Your task to perform on an android device: change timer sound Image 0: 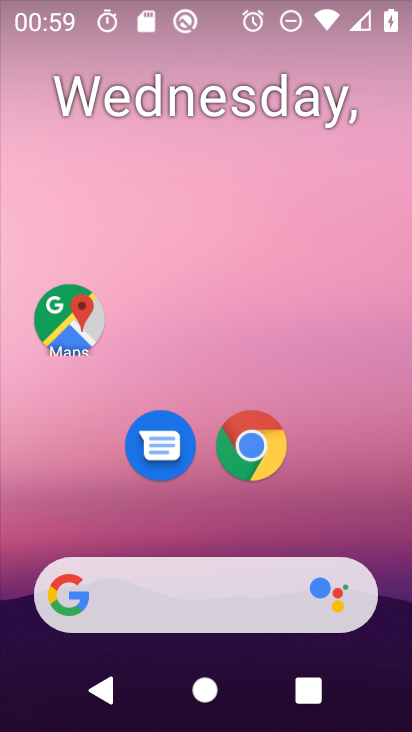
Step 0: drag from (315, 522) to (280, 0)
Your task to perform on an android device: change timer sound Image 1: 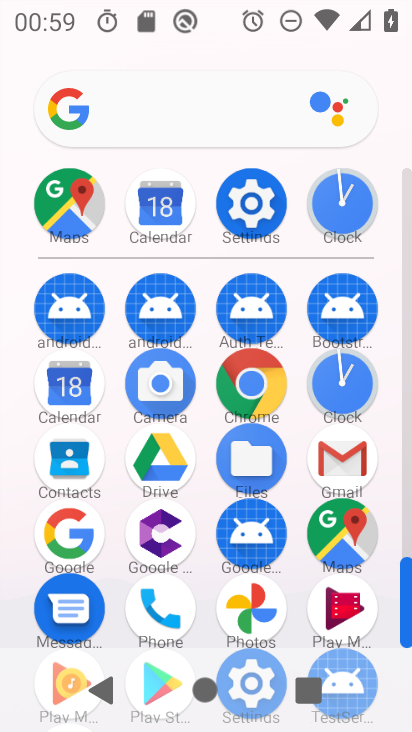
Step 1: click (323, 386)
Your task to perform on an android device: change timer sound Image 2: 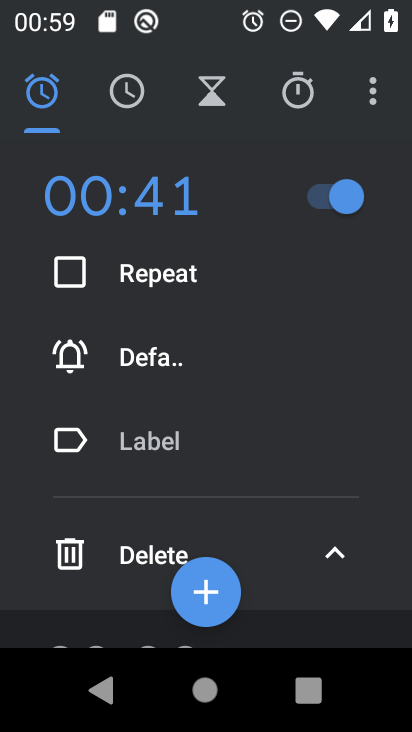
Step 2: click (368, 89)
Your task to perform on an android device: change timer sound Image 3: 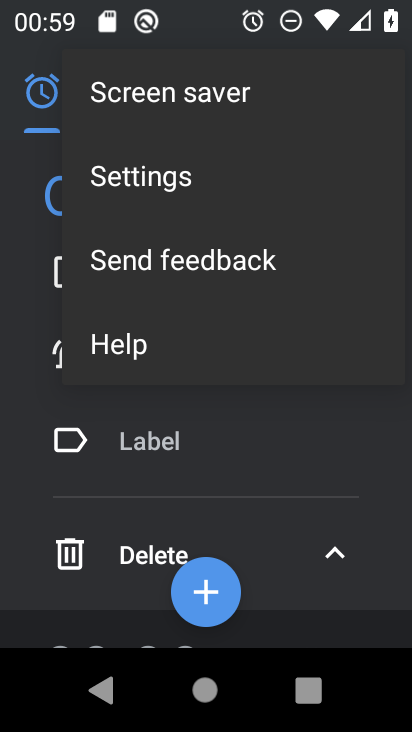
Step 3: click (163, 176)
Your task to perform on an android device: change timer sound Image 4: 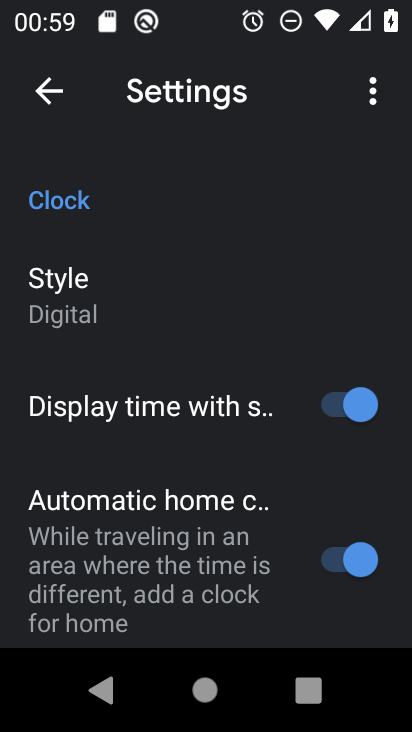
Step 4: drag from (86, 487) to (244, 111)
Your task to perform on an android device: change timer sound Image 5: 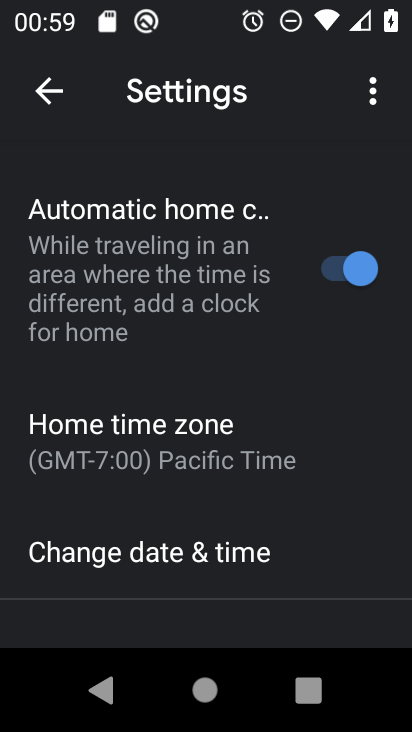
Step 5: drag from (38, 511) to (199, 156)
Your task to perform on an android device: change timer sound Image 6: 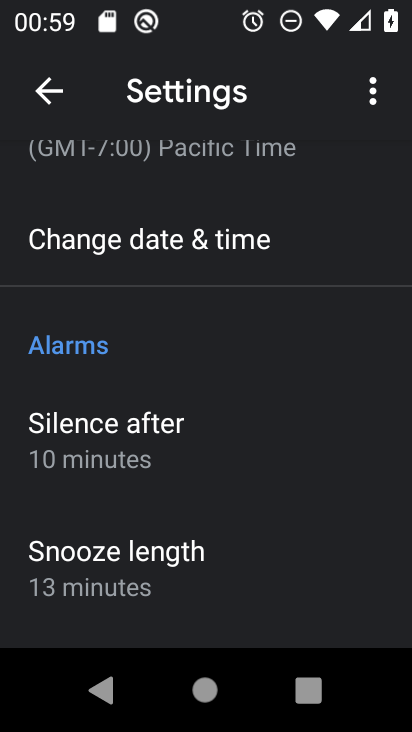
Step 6: drag from (124, 507) to (235, 182)
Your task to perform on an android device: change timer sound Image 7: 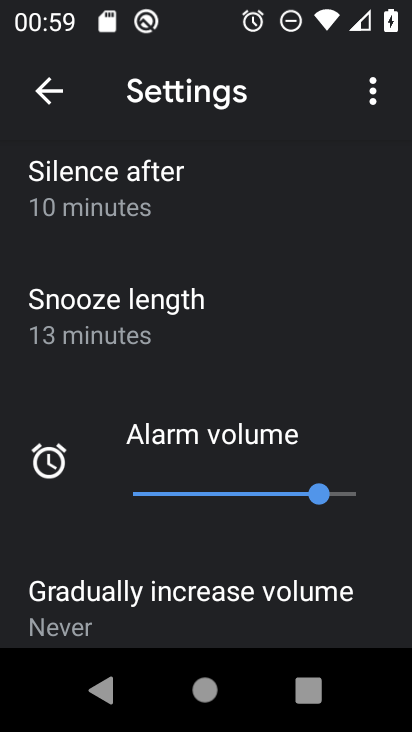
Step 7: drag from (170, 544) to (334, 168)
Your task to perform on an android device: change timer sound Image 8: 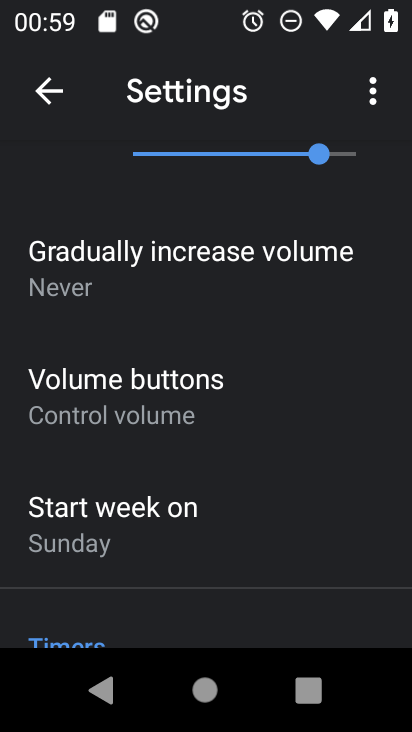
Step 8: drag from (232, 486) to (353, 206)
Your task to perform on an android device: change timer sound Image 9: 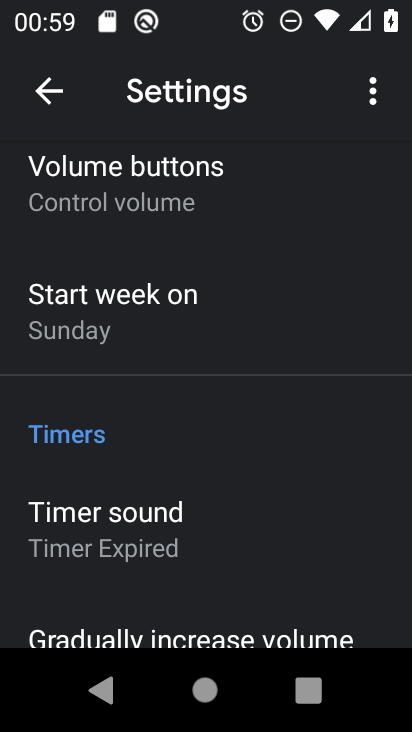
Step 9: click (214, 551)
Your task to perform on an android device: change timer sound Image 10: 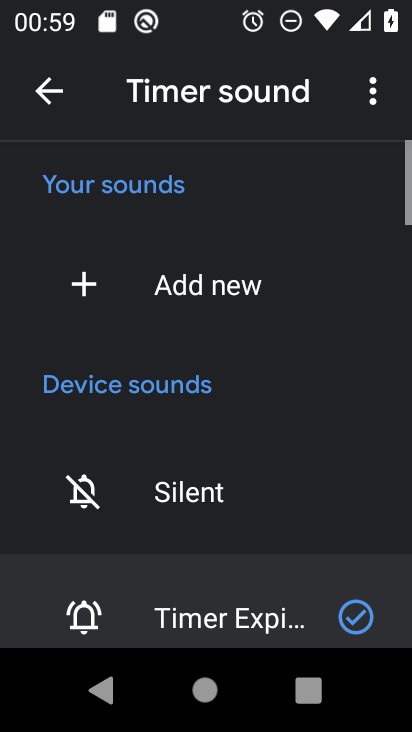
Step 10: drag from (185, 547) to (256, 153)
Your task to perform on an android device: change timer sound Image 11: 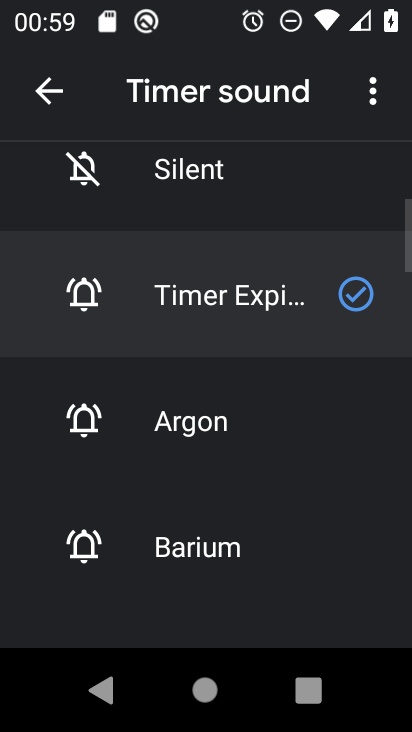
Step 11: click (49, 564)
Your task to perform on an android device: change timer sound Image 12: 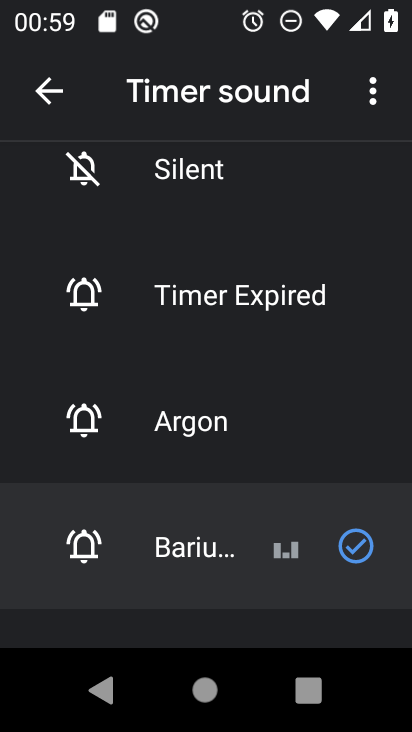
Step 12: task complete